Your task to perform on an android device: Open the web browser Image 0: 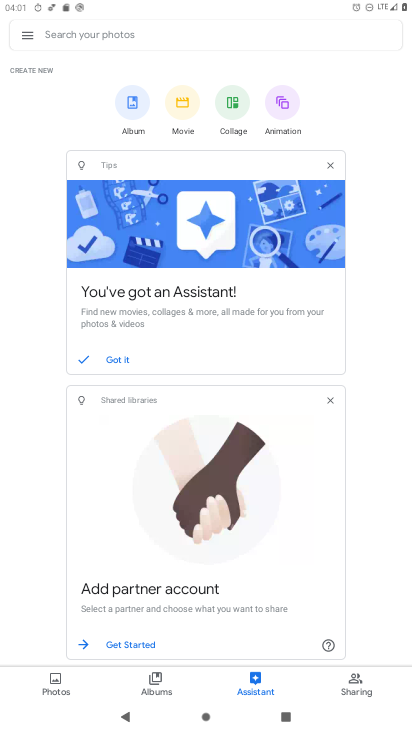
Step 0: press home button
Your task to perform on an android device: Open the web browser Image 1: 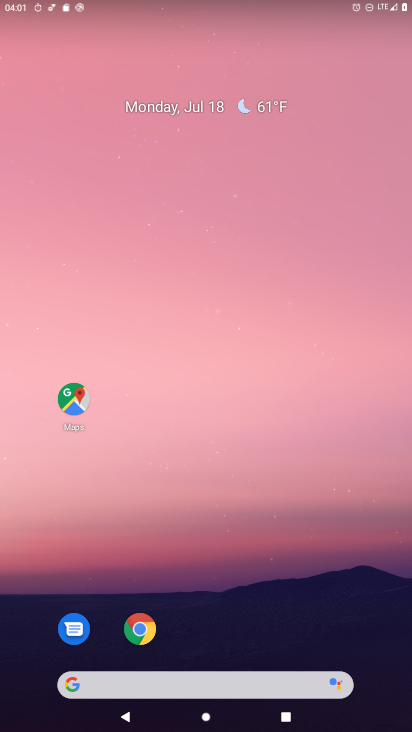
Step 1: click (142, 633)
Your task to perform on an android device: Open the web browser Image 2: 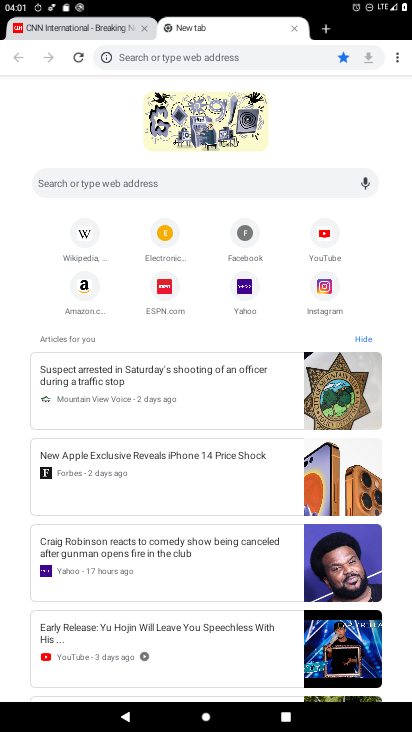
Step 2: task complete